Your task to perform on an android device: Open privacy settings Image 0: 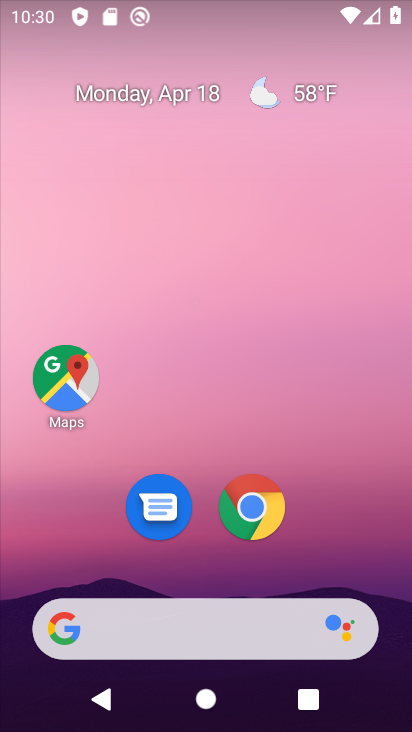
Step 0: drag from (255, 20) to (229, 483)
Your task to perform on an android device: Open privacy settings Image 1: 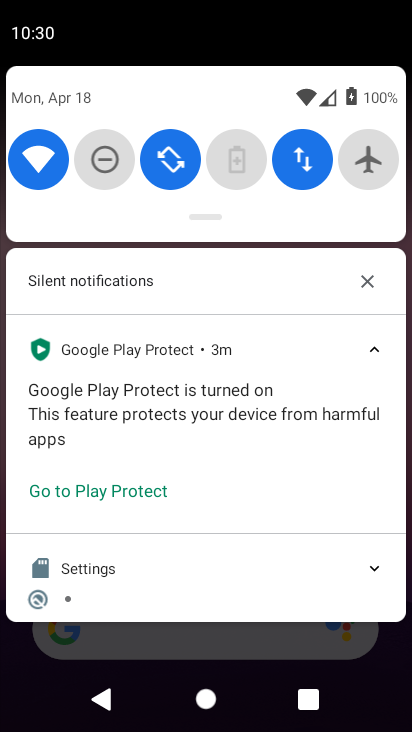
Step 1: drag from (189, 113) to (211, 408)
Your task to perform on an android device: Open privacy settings Image 2: 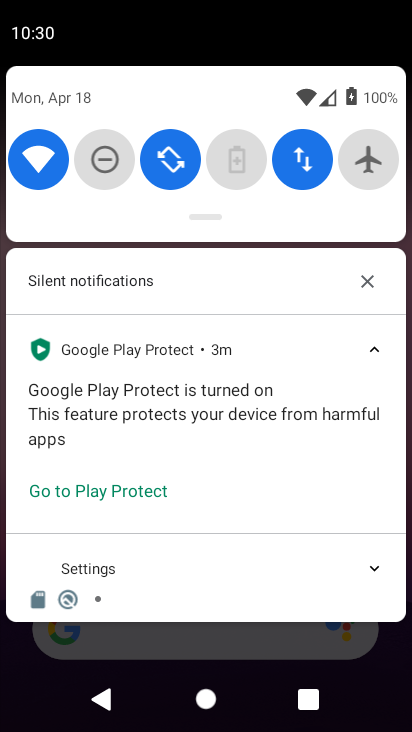
Step 2: drag from (237, 89) to (261, 654)
Your task to perform on an android device: Open privacy settings Image 3: 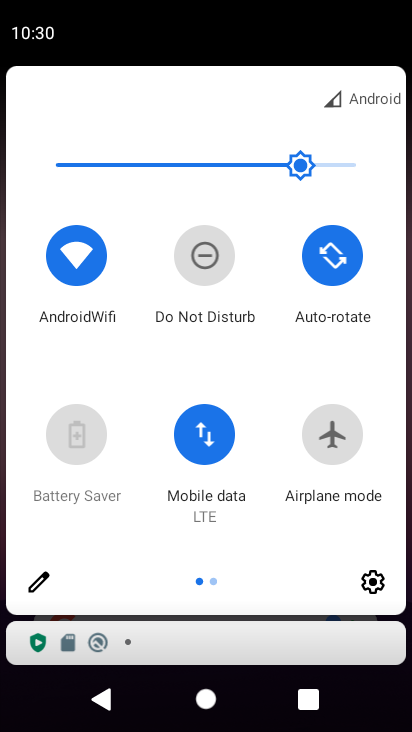
Step 3: click (378, 596)
Your task to perform on an android device: Open privacy settings Image 4: 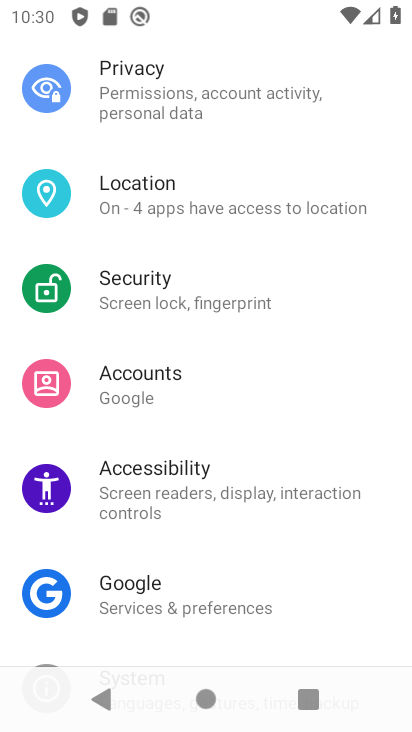
Step 4: click (211, 119)
Your task to perform on an android device: Open privacy settings Image 5: 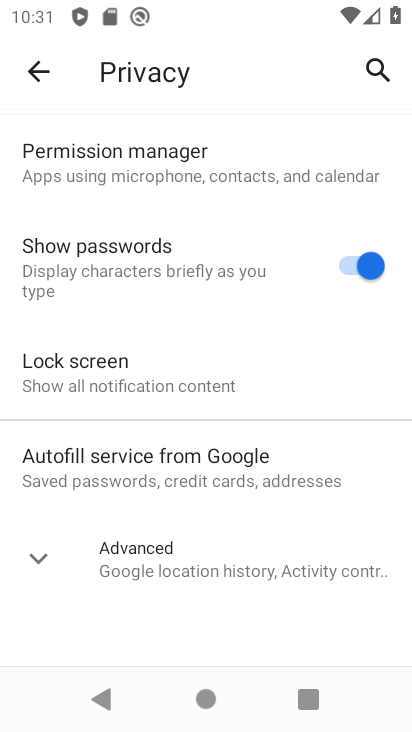
Step 5: task complete